Your task to perform on an android device: turn on priority inbox in the gmail app Image 0: 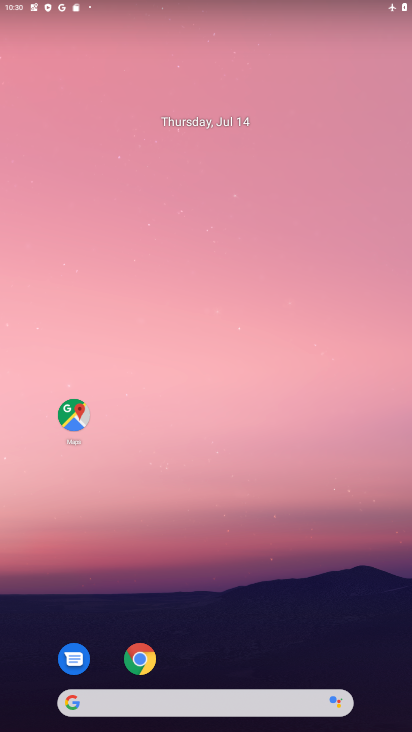
Step 0: drag from (200, 650) to (177, 219)
Your task to perform on an android device: turn on priority inbox in the gmail app Image 1: 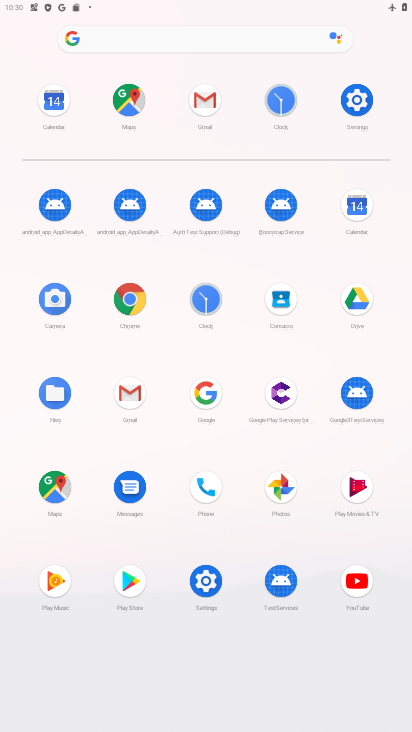
Step 1: click (120, 384)
Your task to perform on an android device: turn on priority inbox in the gmail app Image 2: 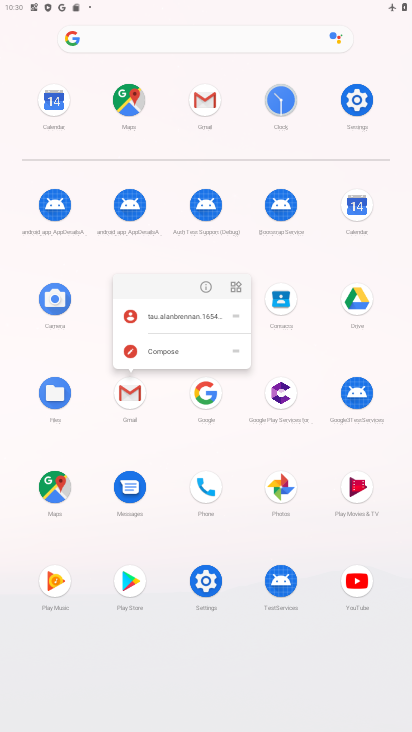
Step 2: click (115, 391)
Your task to perform on an android device: turn on priority inbox in the gmail app Image 3: 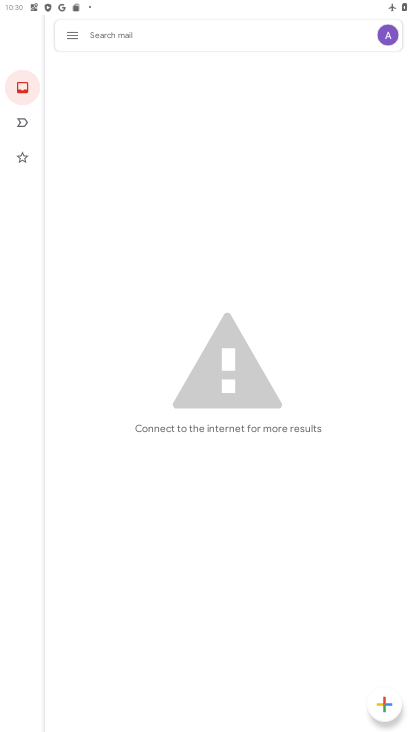
Step 3: click (76, 32)
Your task to perform on an android device: turn on priority inbox in the gmail app Image 4: 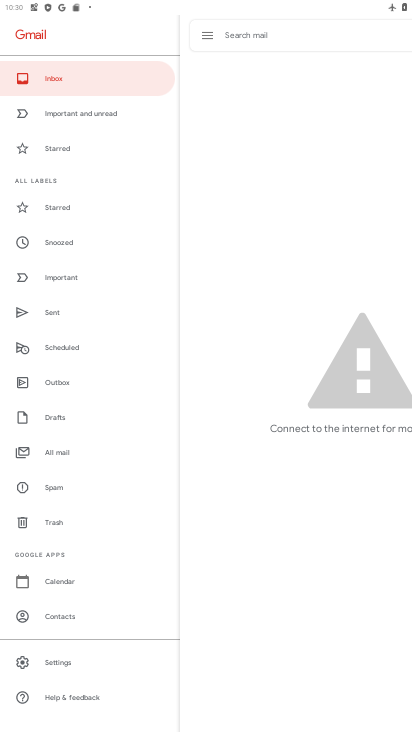
Step 4: click (84, 663)
Your task to perform on an android device: turn on priority inbox in the gmail app Image 5: 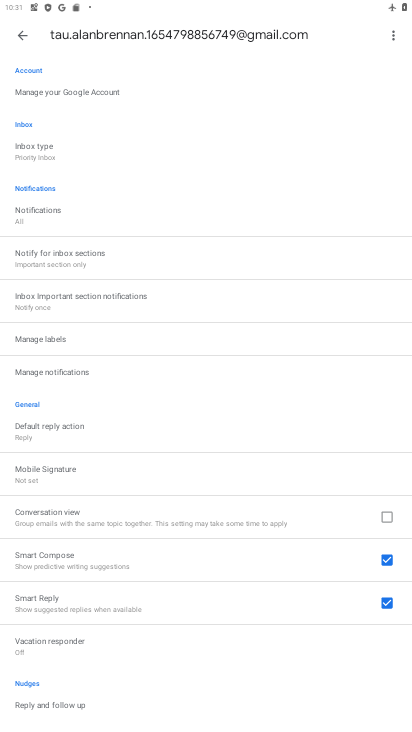
Step 5: click (44, 155)
Your task to perform on an android device: turn on priority inbox in the gmail app Image 6: 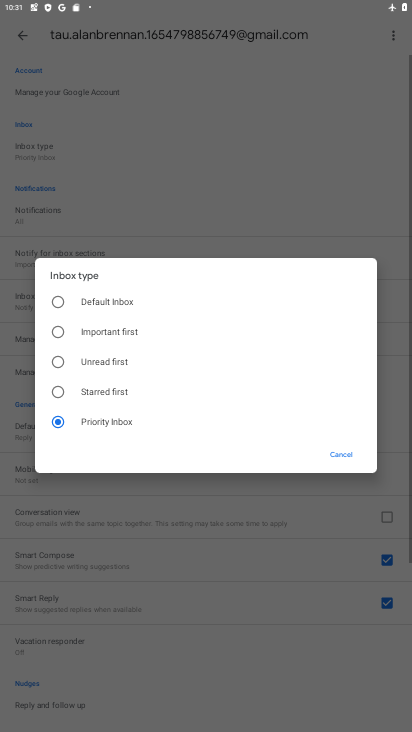
Step 6: task complete